Your task to perform on an android device: Go to internet settings Image 0: 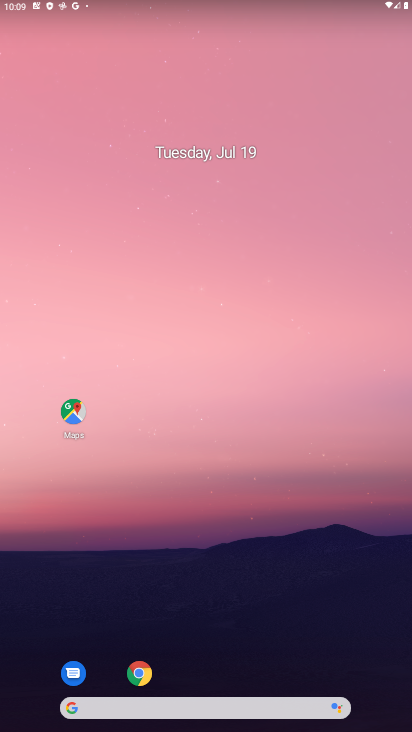
Step 0: drag from (215, 679) to (203, 43)
Your task to perform on an android device: Go to internet settings Image 1: 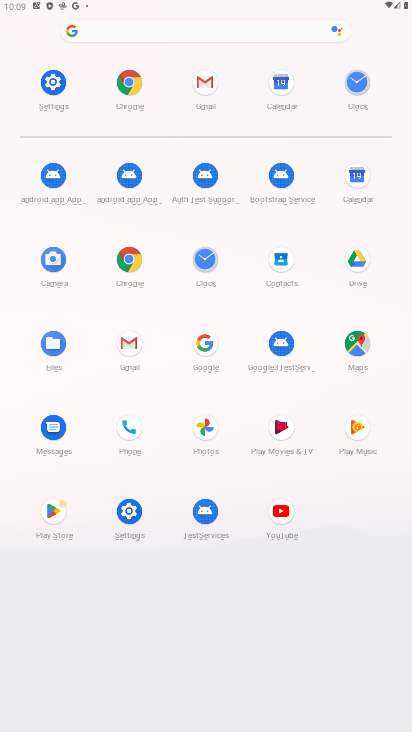
Step 1: click (59, 92)
Your task to perform on an android device: Go to internet settings Image 2: 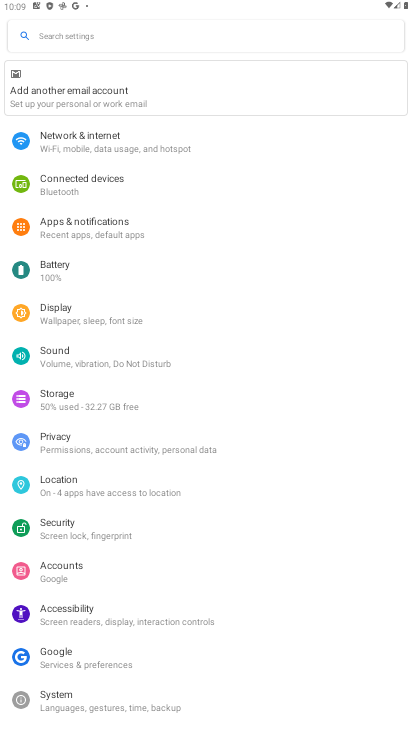
Step 2: click (173, 150)
Your task to perform on an android device: Go to internet settings Image 3: 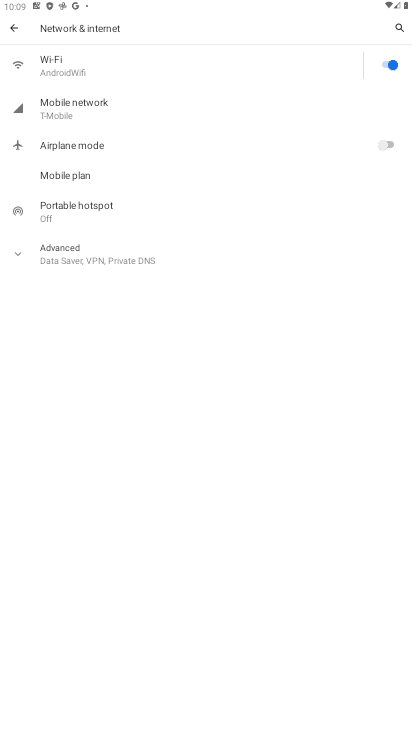
Step 3: task complete